Your task to perform on an android device: Open the web browser Image 0: 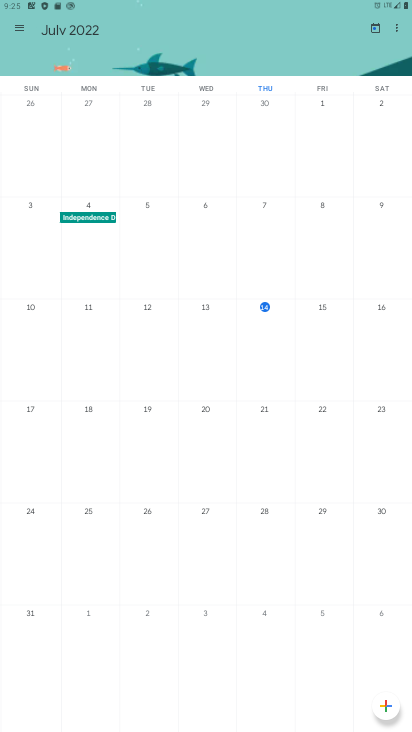
Step 0: press home button
Your task to perform on an android device: Open the web browser Image 1: 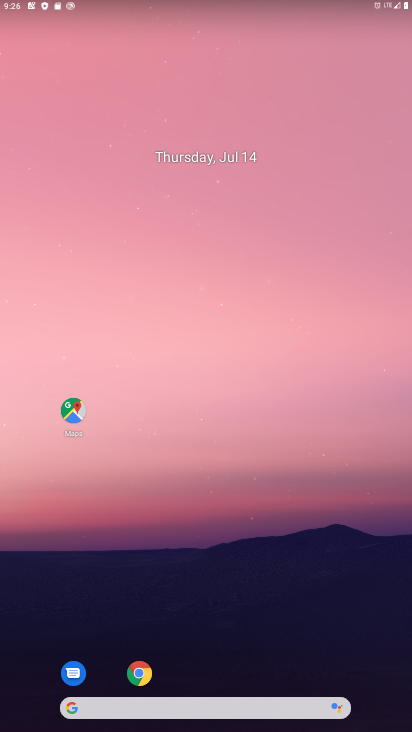
Step 1: click (139, 677)
Your task to perform on an android device: Open the web browser Image 2: 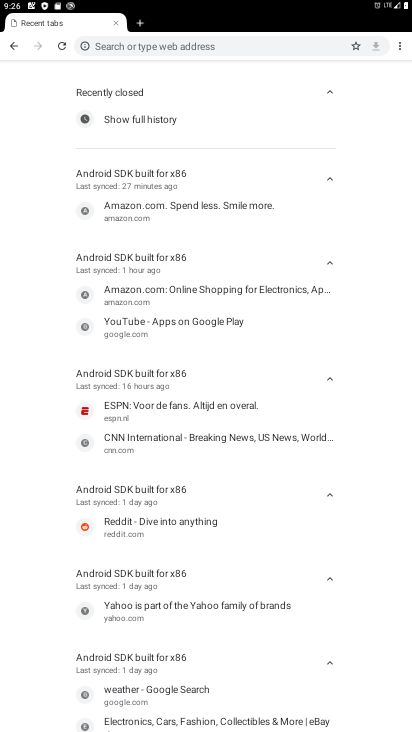
Step 2: task complete